Your task to perform on an android device: Toggle the flashlight Image 0: 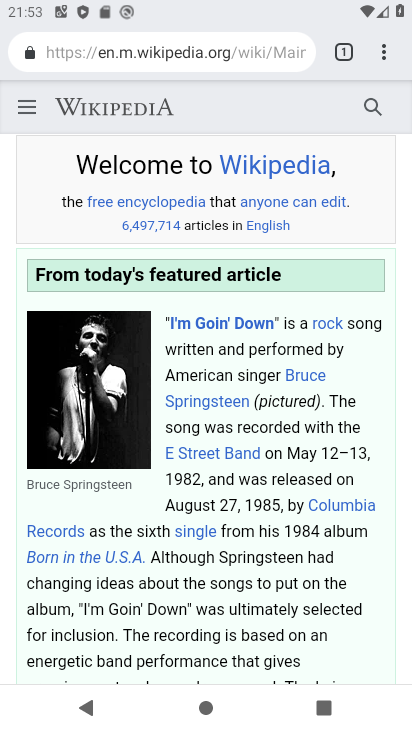
Step 0: press home button
Your task to perform on an android device: Toggle the flashlight Image 1: 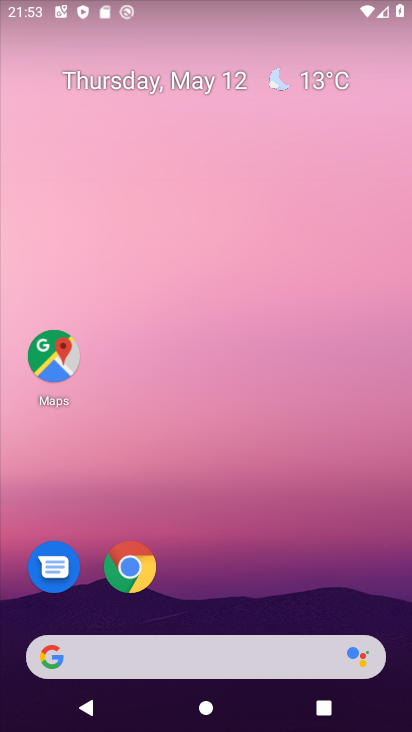
Step 1: drag from (216, 617) to (223, 95)
Your task to perform on an android device: Toggle the flashlight Image 2: 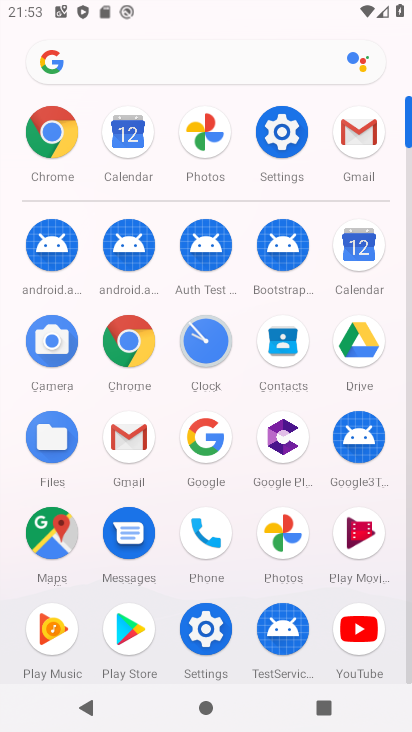
Step 2: click (280, 125)
Your task to perform on an android device: Toggle the flashlight Image 3: 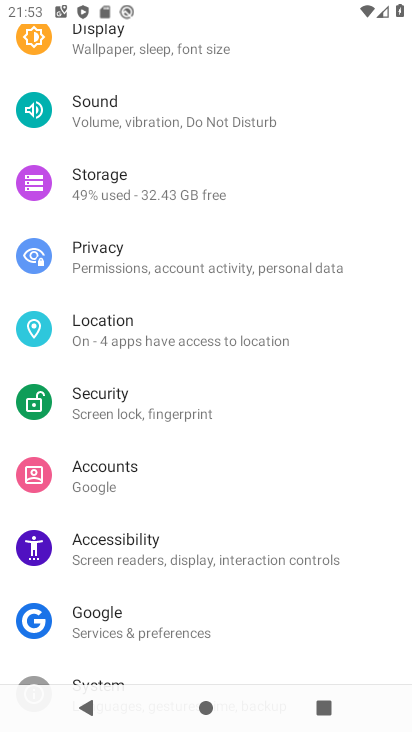
Step 3: drag from (161, 105) to (200, 685)
Your task to perform on an android device: Toggle the flashlight Image 4: 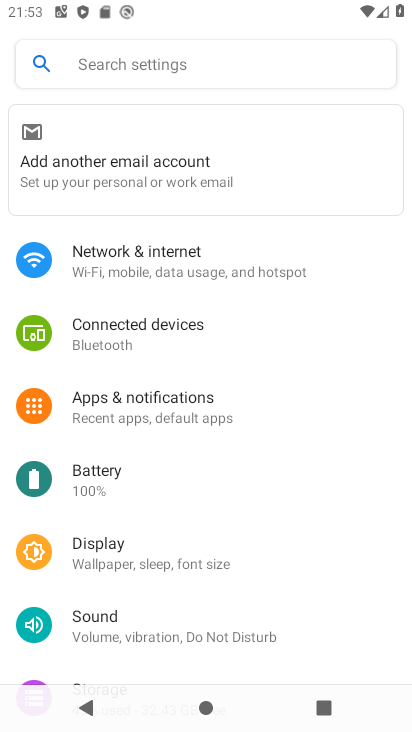
Step 4: click (133, 58)
Your task to perform on an android device: Toggle the flashlight Image 5: 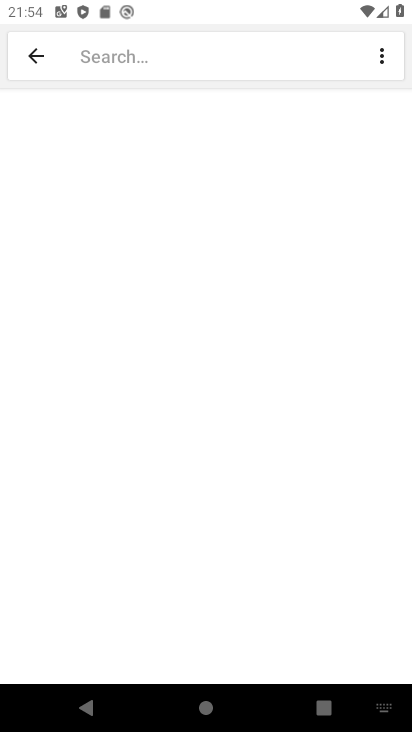
Step 5: type "flashlight"
Your task to perform on an android device: Toggle the flashlight Image 6: 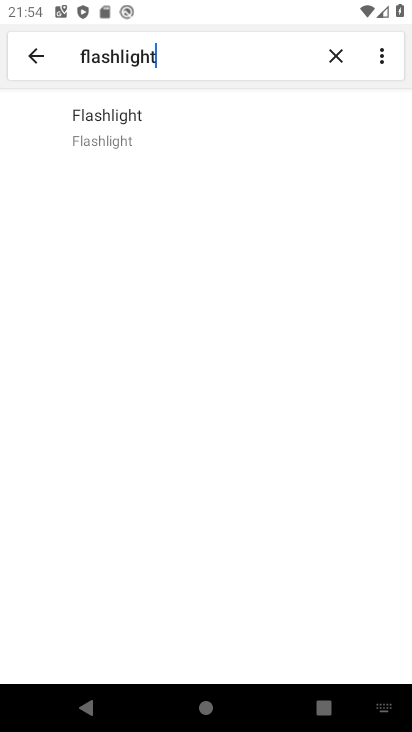
Step 6: click (135, 127)
Your task to perform on an android device: Toggle the flashlight Image 7: 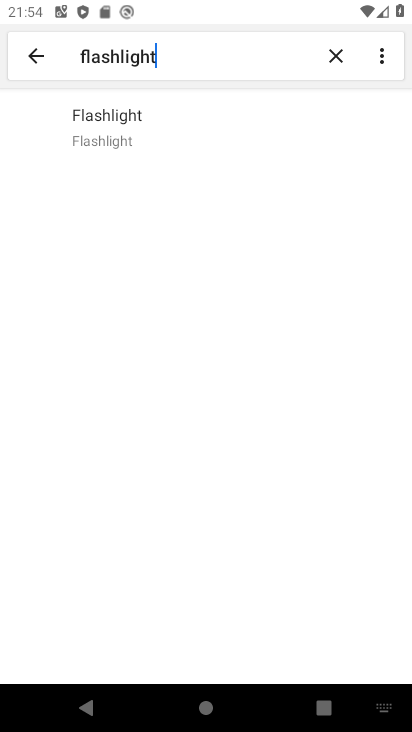
Step 7: click (135, 127)
Your task to perform on an android device: Toggle the flashlight Image 8: 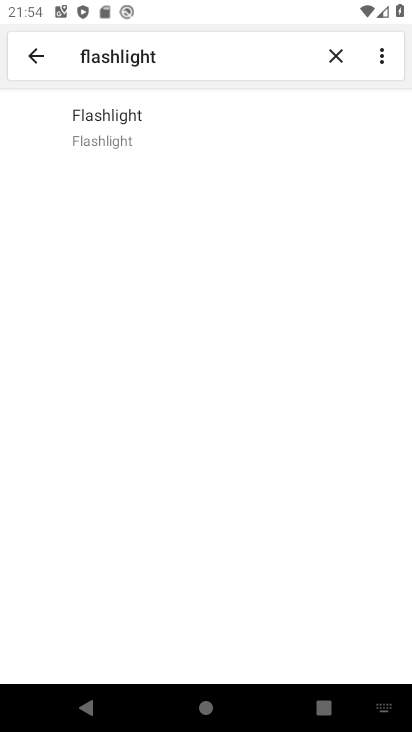
Step 8: task complete